Your task to perform on an android device: toggle data saver in the chrome app Image 0: 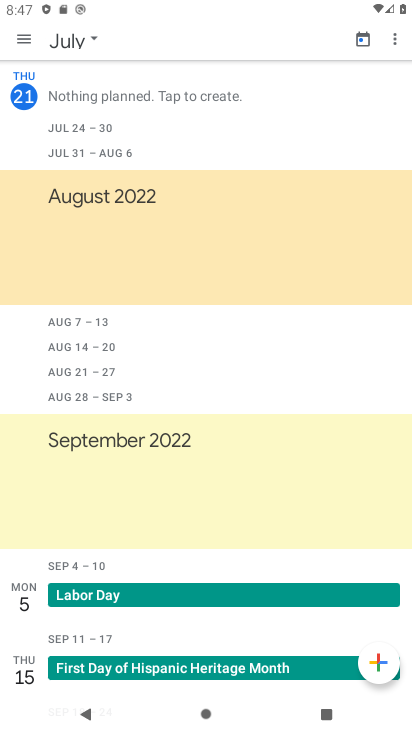
Step 0: press home button
Your task to perform on an android device: toggle data saver in the chrome app Image 1: 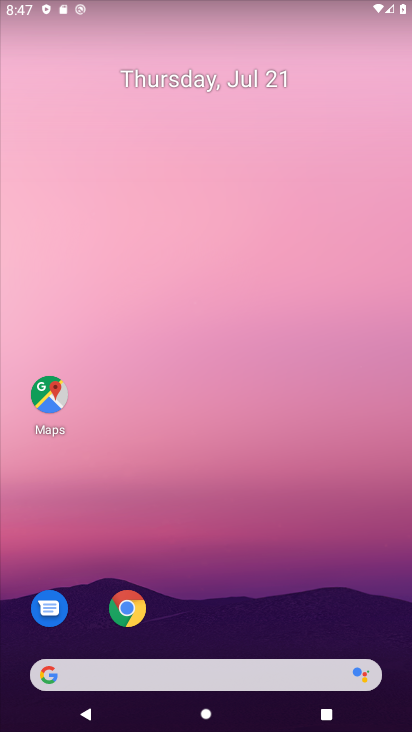
Step 1: click (132, 619)
Your task to perform on an android device: toggle data saver in the chrome app Image 2: 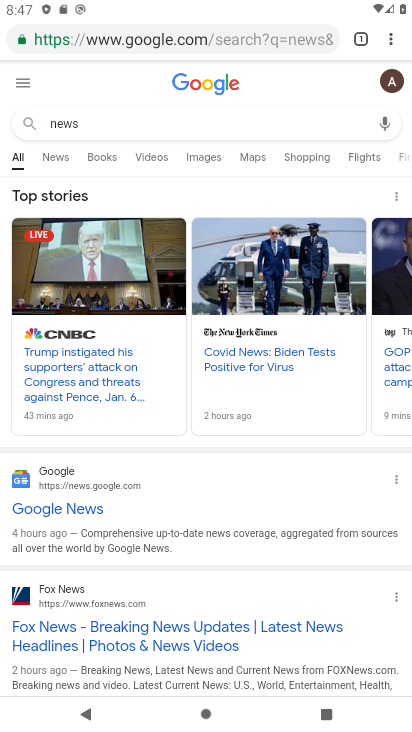
Step 2: click (389, 39)
Your task to perform on an android device: toggle data saver in the chrome app Image 3: 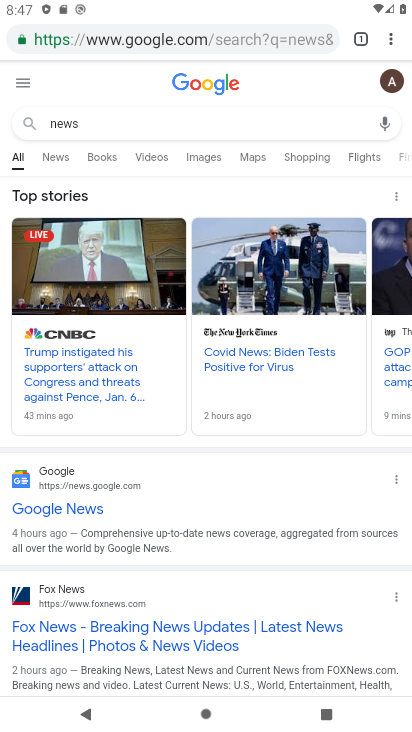
Step 3: drag from (390, 46) to (261, 433)
Your task to perform on an android device: toggle data saver in the chrome app Image 4: 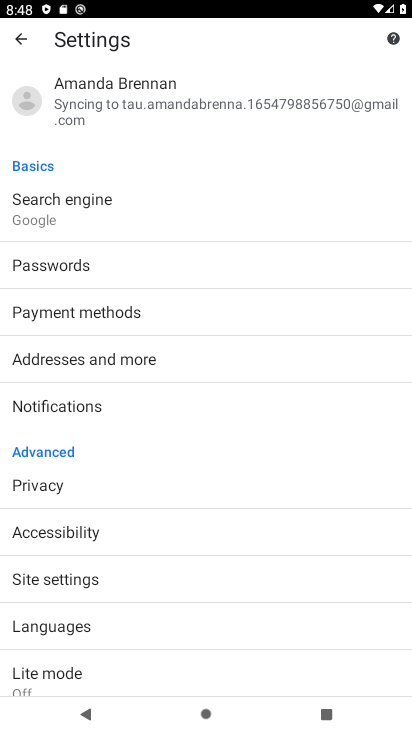
Step 4: drag from (242, 658) to (208, 385)
Your task to perform on an android device: toggle data saver in the chrome app Image 5: 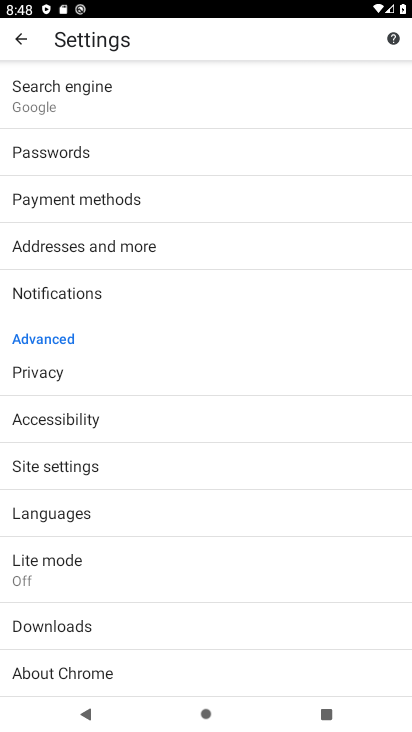
Step 5: click (182, 575)
Your task to perform on an android device: toggle data saver in the chrome app Image 6: 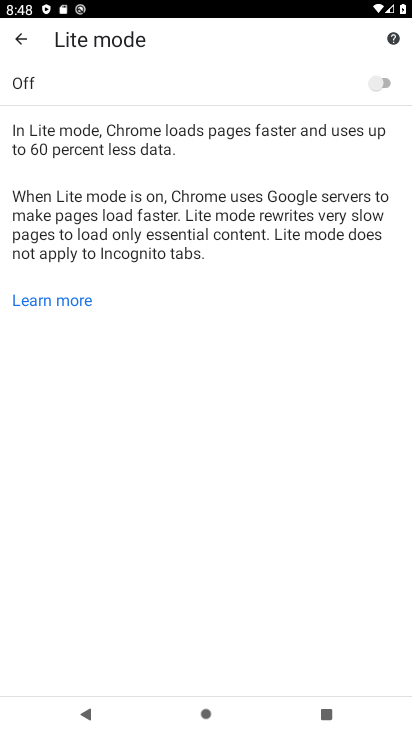
Step 6: click (377, 94)
Your task to perform on an android device: toggle data saver in the chrome app Image 7: 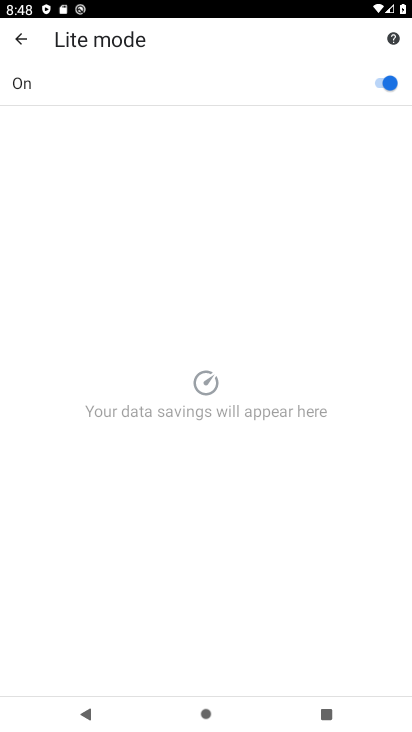
Step 7: task complete